Your task to perform on an android device: Turn on the flashlight Image 0: 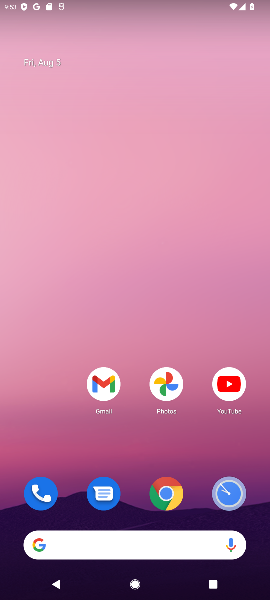
Step 0: press home button
Your task to perform on an android device: Turn on the flashlight Image 1: 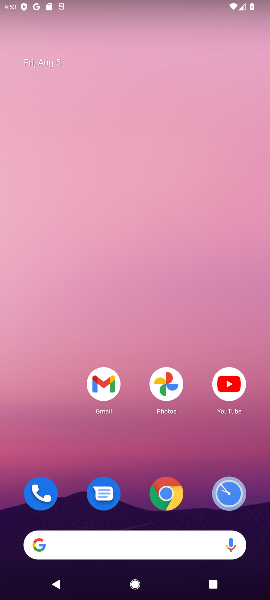
Step 1: drag from (131, 462) to (143, 27)
Your task to perform on an android device: Turn on the flashlight Image 2: 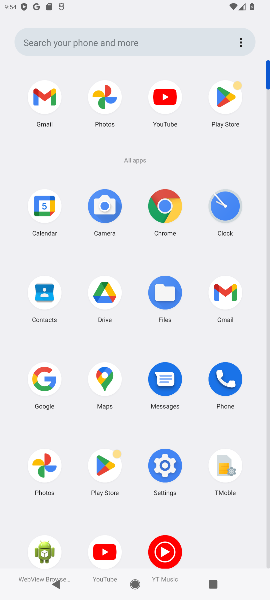
Step 2: click (163, 463)
Your task to perform on an android device: Turn on the flashlight Image 3: 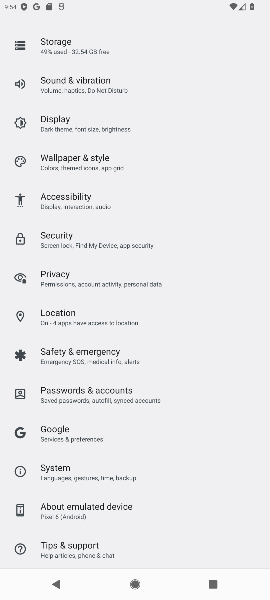
Step 3: drag from (80, 49) to (132, 526)
Your task to perform on an android device: Turn on the flashlight Image 4: 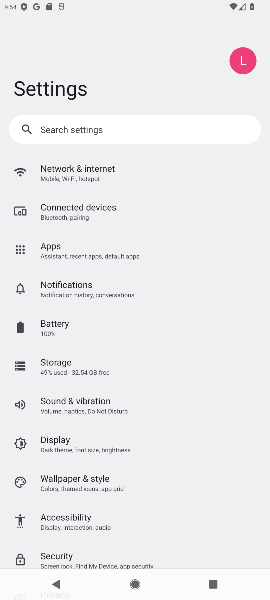
Step 4: click (80, 123)
Your task to perform on an android device: Turn on the flashlight Image 5: 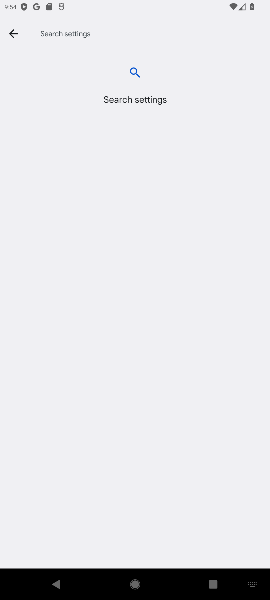
Step 5: type "flashlight"
Your task to perform on an android device: Turn on the flashlight Image 6: 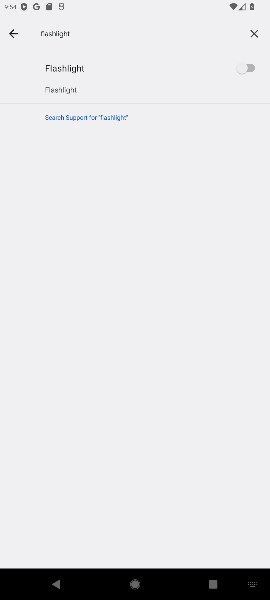
Step 6: click (245, 64)
Your task to perform on an android device: Turn on the flashlight Image 7: 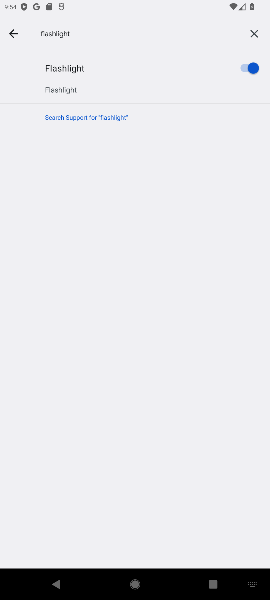
Step 7: task complete